Your task to perform on an android device: Check the weather Image 0: 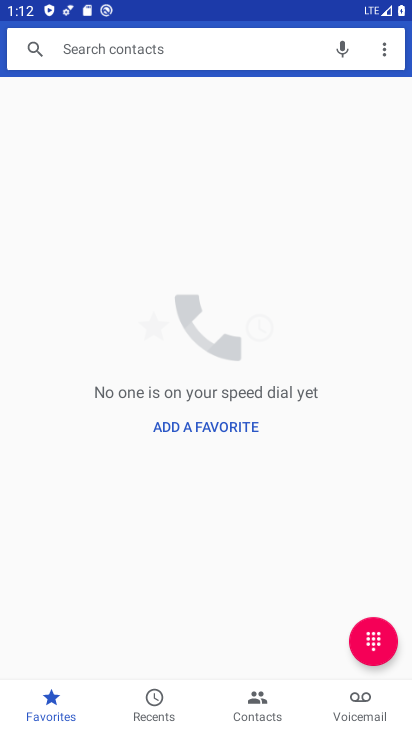
Step 0: press home button
Your task to perform on an android device: Check the weather Image 1: 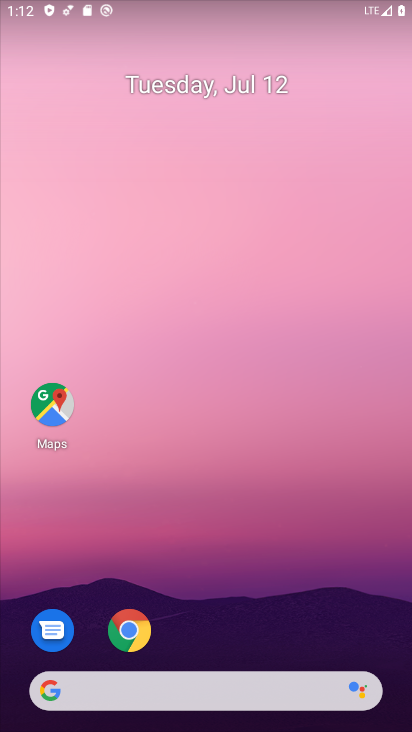
Step 1: task complete